Your task to perform on an android device: change timer sound Image 0: 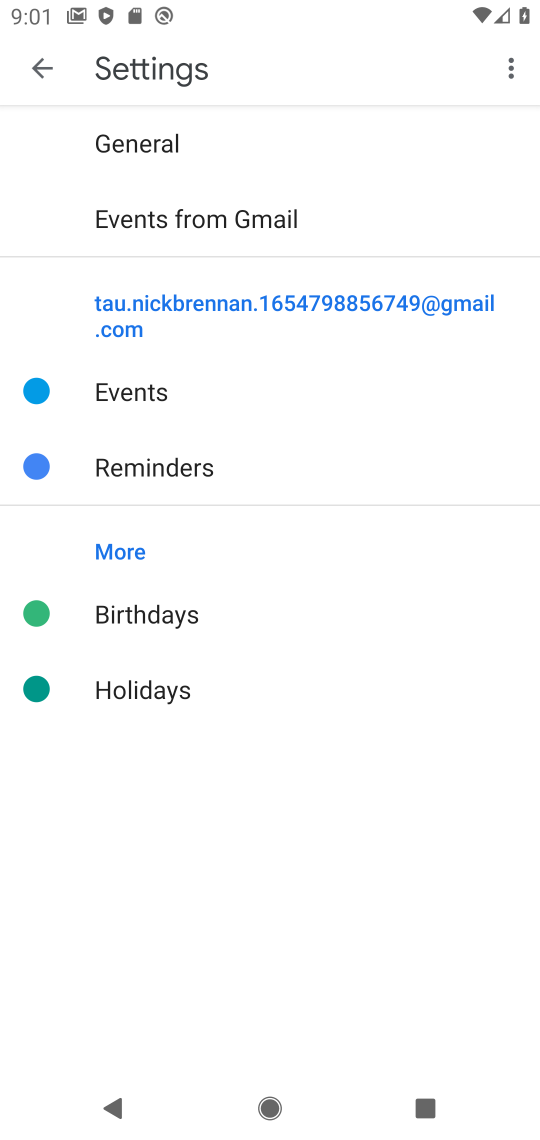
Step 0: press home button
Your task to perform on an android device: change timer sound Image 1: 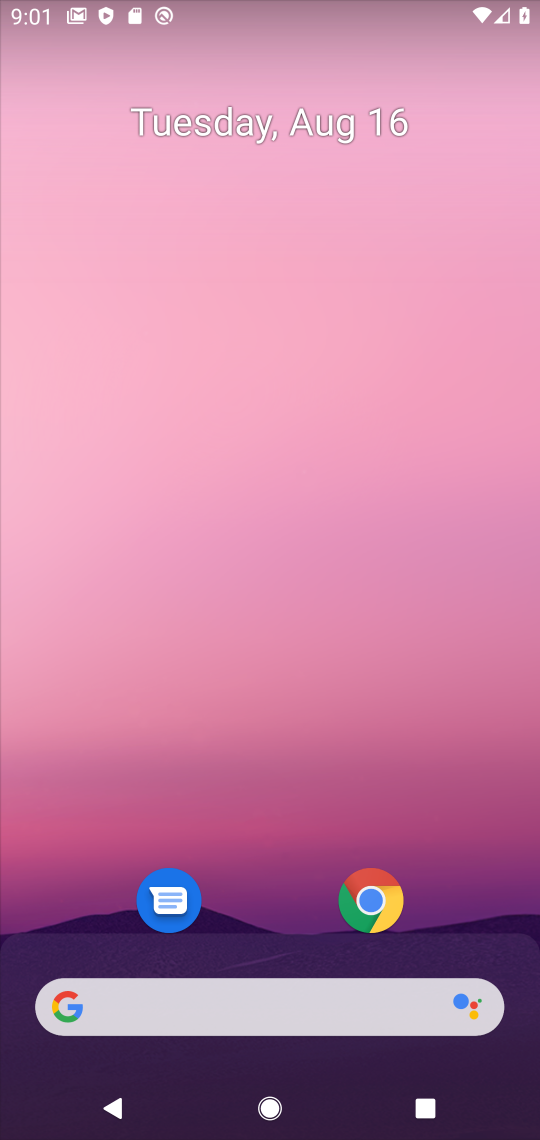
Step 1: drag from (198, 944) to (304, 318)
Your task to perform on an android device: change timer sound Image 2: 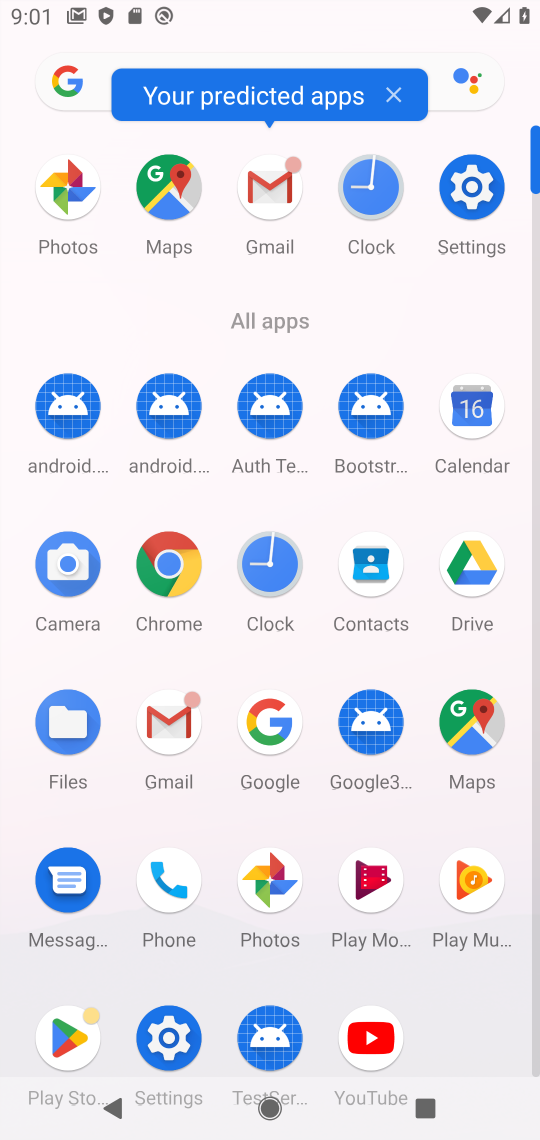
Step 2: click (291, 593)
Your task to perform on an android device: change timer sound Image 3: 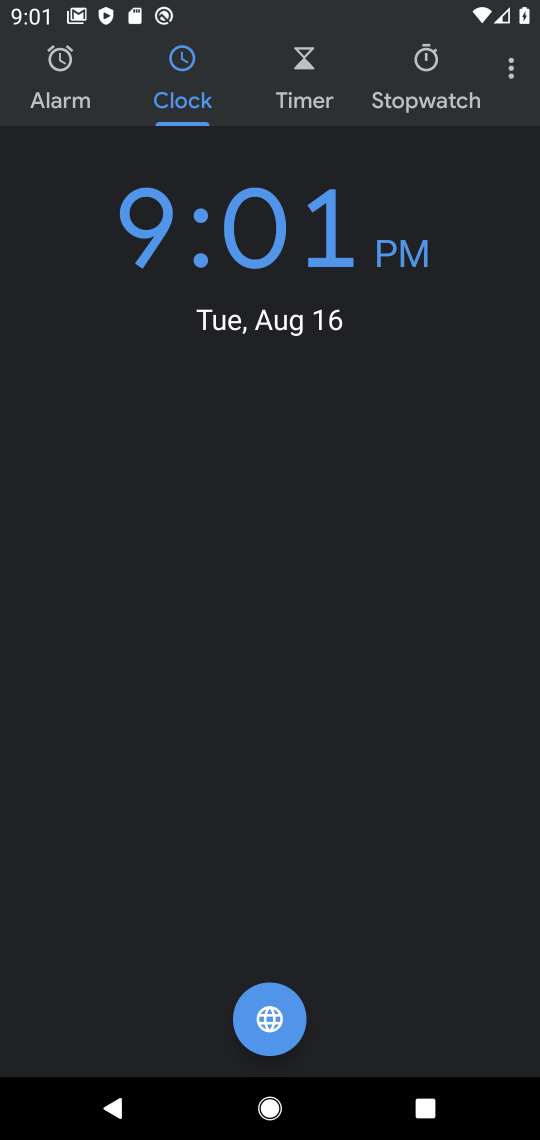
Step 3: click (501, 62)
Your task to perform on an android device: change timer sound Image 4: 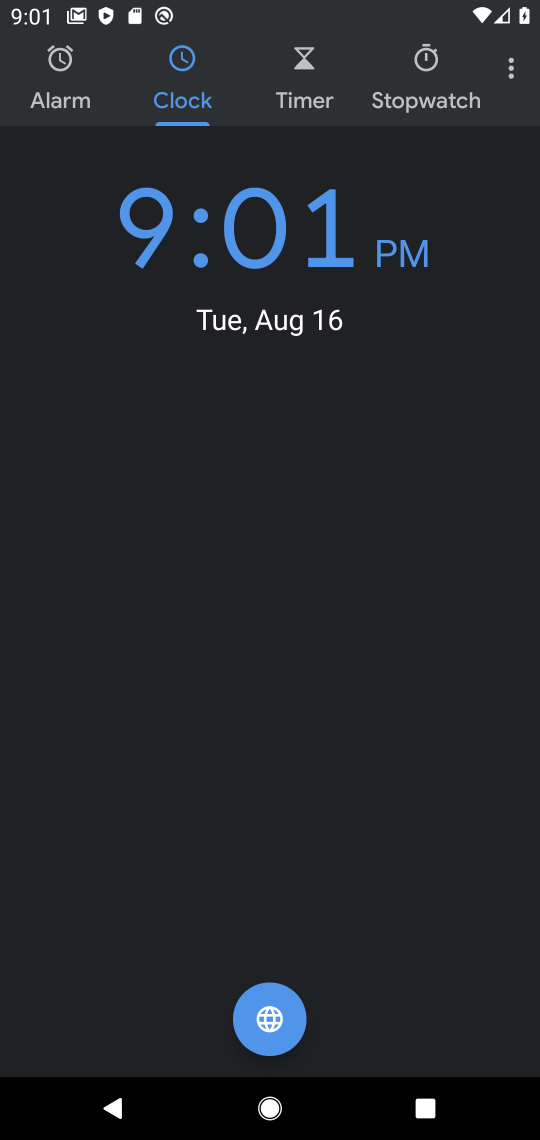
Step 4: click (499, 70)
Your task to perform on an android device: change timer sound Image 5: 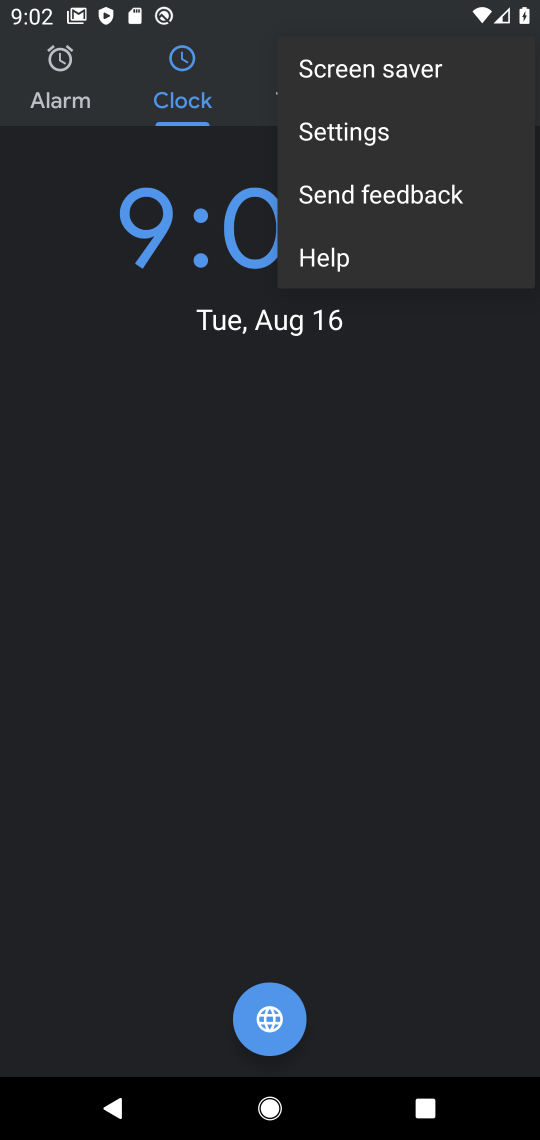
Step 5: click (325, 129)
Your task to perform on an android device: change timer sound Image 6: 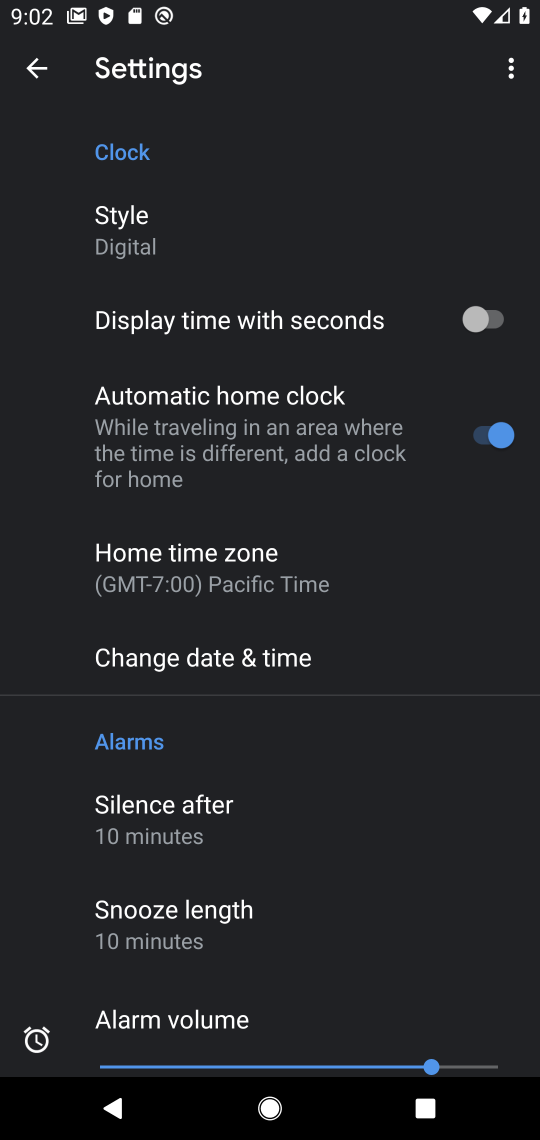
Step 6: drag from (196, 889) to (252, 209)
Your task to perform on an android device: change timer sound Image 7: 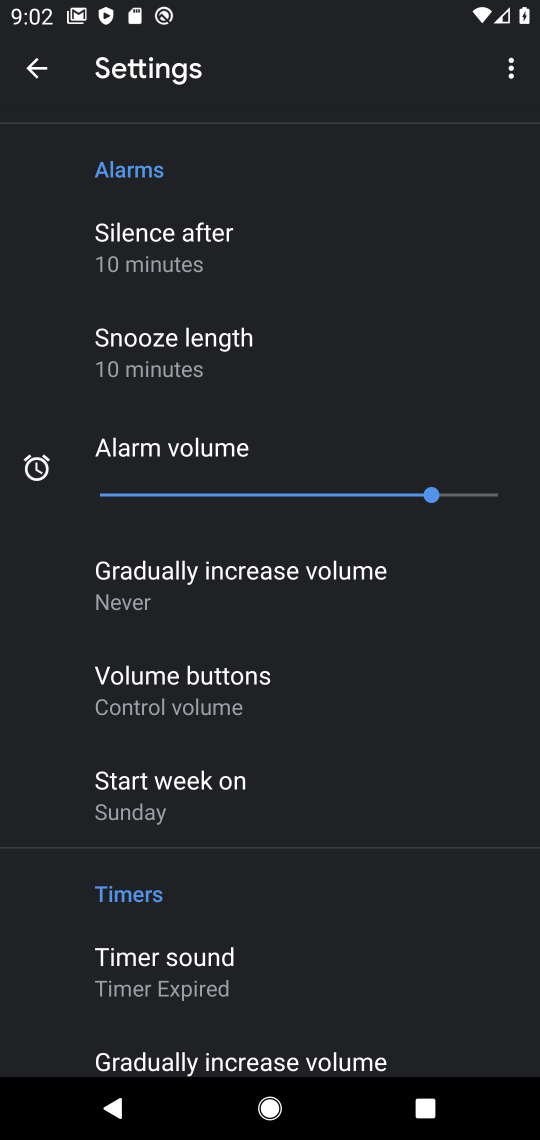
Step 7: drag from (213, 756) to (222, 233)
Your task to perform on an android device: change timer sound Image 8: 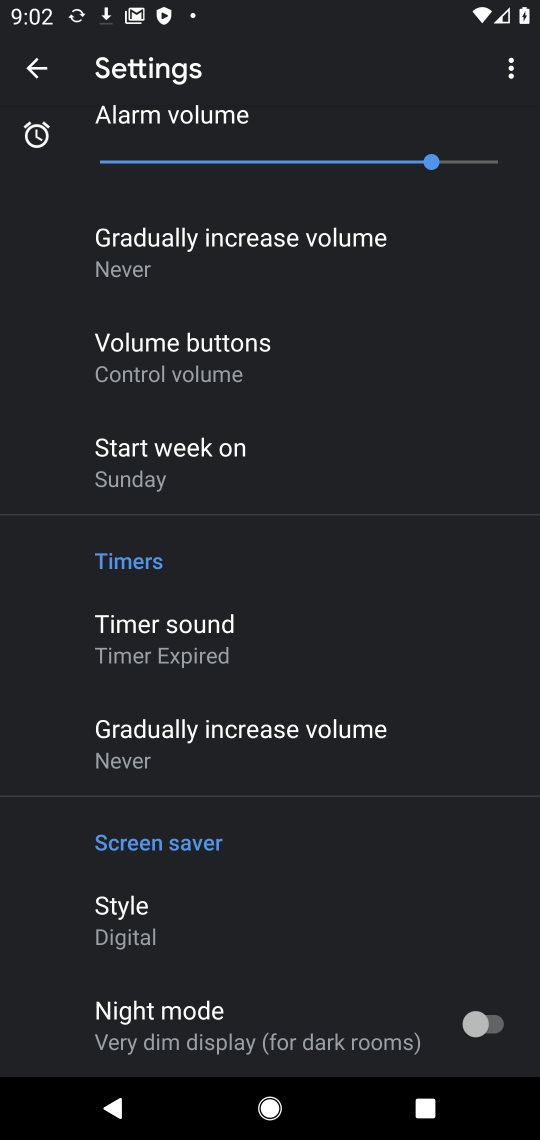
Step 8: drag from (180, 966) to (180, 384)
Your task to perform on an android device: change timer sound Image 9: 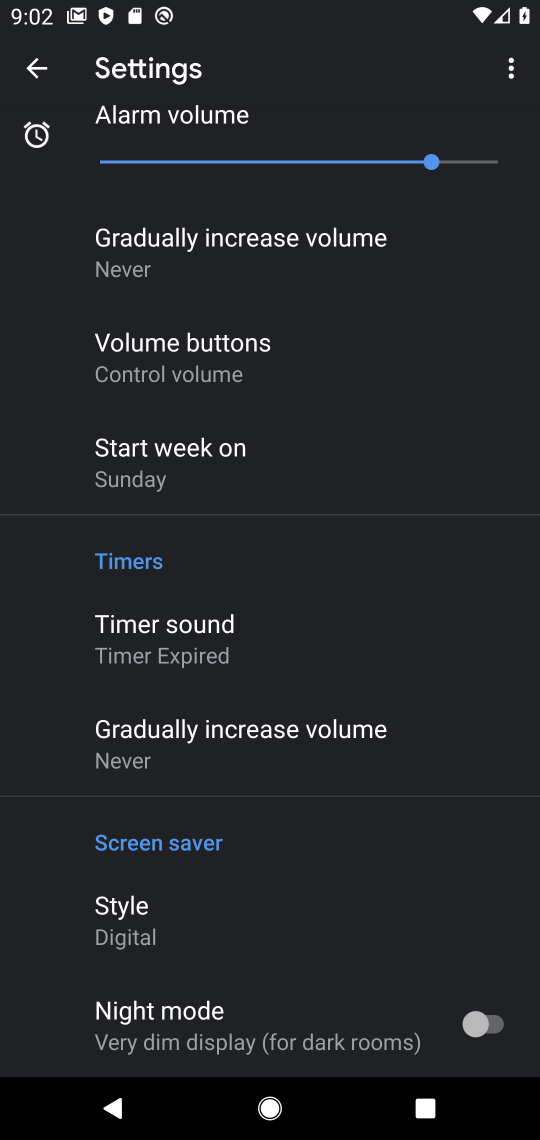
Step 9: drag from (92, 941) to (123, 362)
Your task to perform on an android device: change timer sound Image 10: 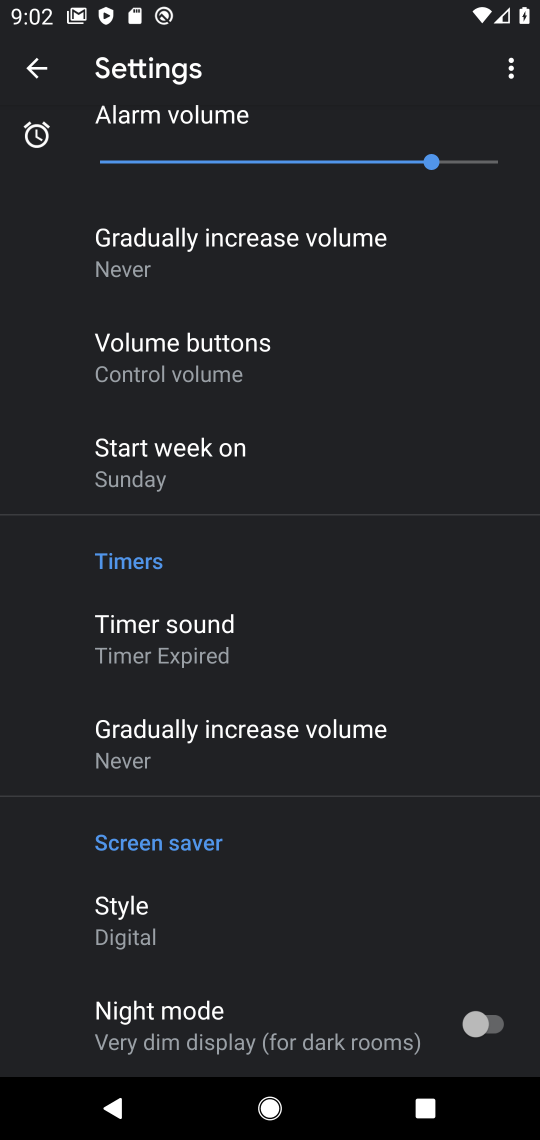
Step 10: click (169, 651)
Your task to perform on an android device: change timer sound Image 11: 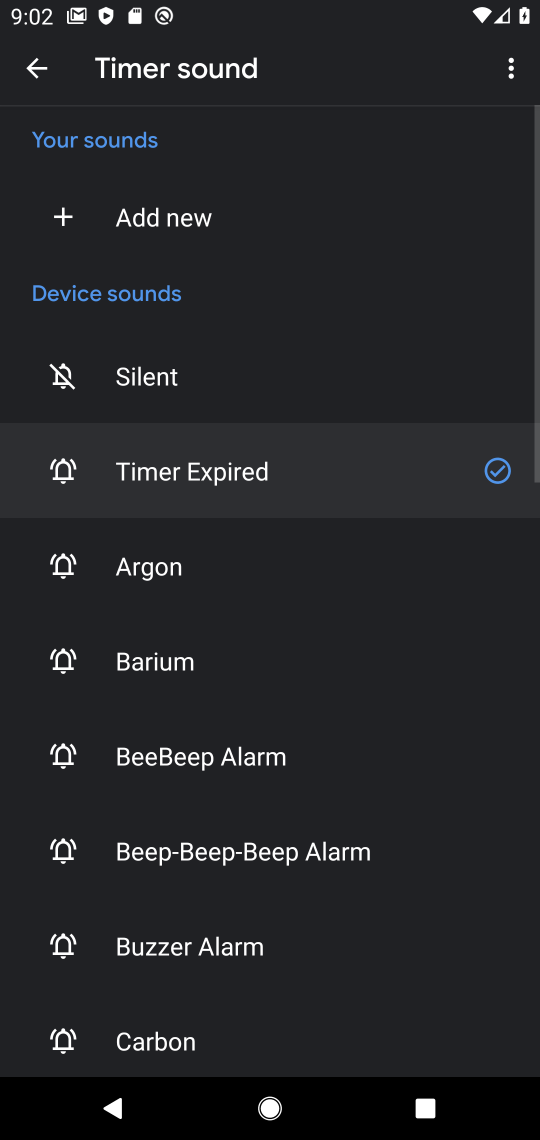
Step 11: click (101, 551)
Your task to perform on an android device: change timer sound Image 12: 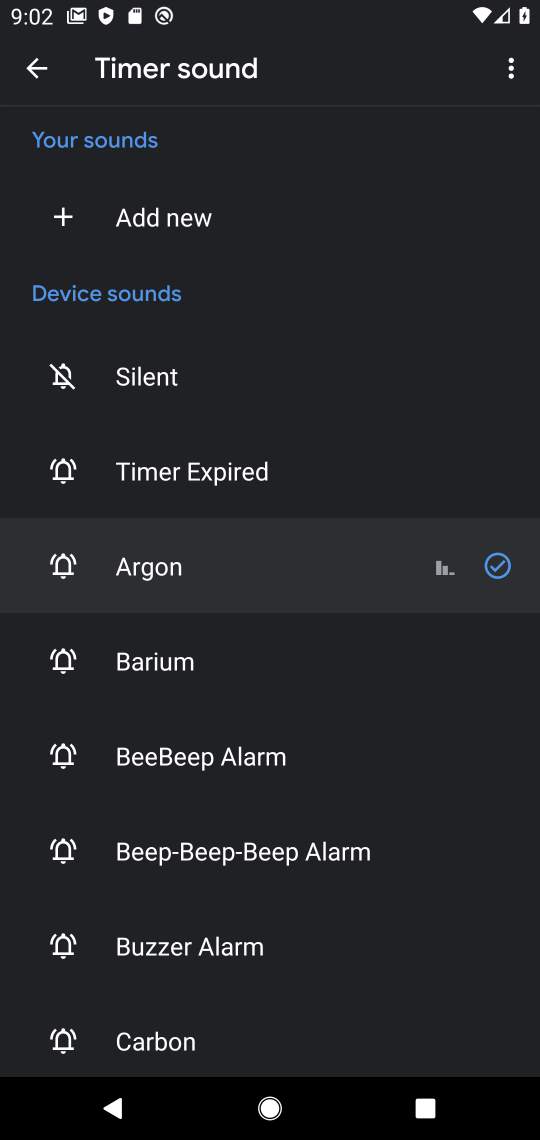
Step 12: task complete